Your task to perform on an android device: change notification settings in the gmail app Image 0: 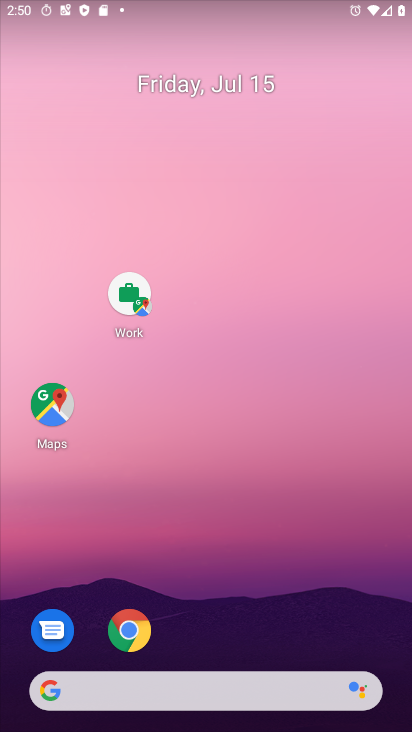
Step 0: drag from (239, 628) to (285, 257)
Your task to perform on an android device: change notification settings in the gmail app Image 1: 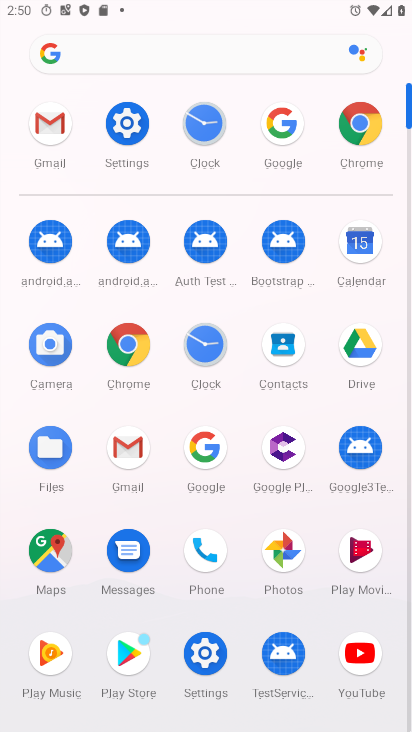
Step 1: click (48, 125)
Your task to perform on an android device: change notification settings in the gmail app Image 2: 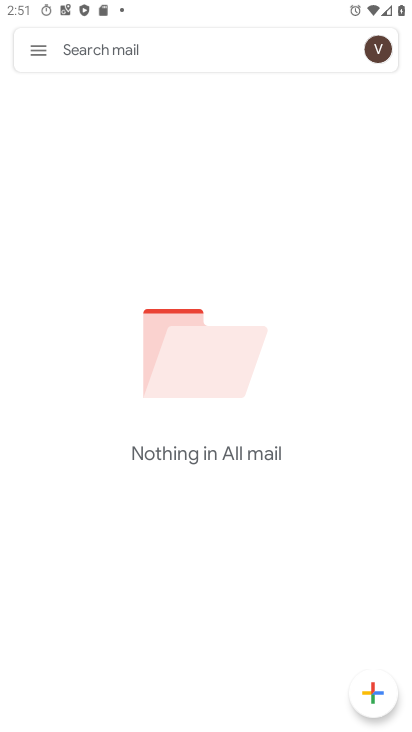
Step 2: click (39, 62)
Your task to perform on an android device: change notification settings in the gmail app Image 3: 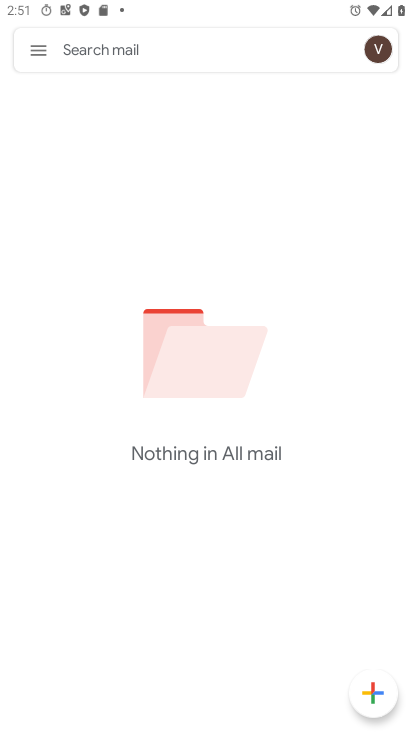
Step 3: click (44, 53)
Your task to perform on an android device: change notification settings in the gmail app Image 4: 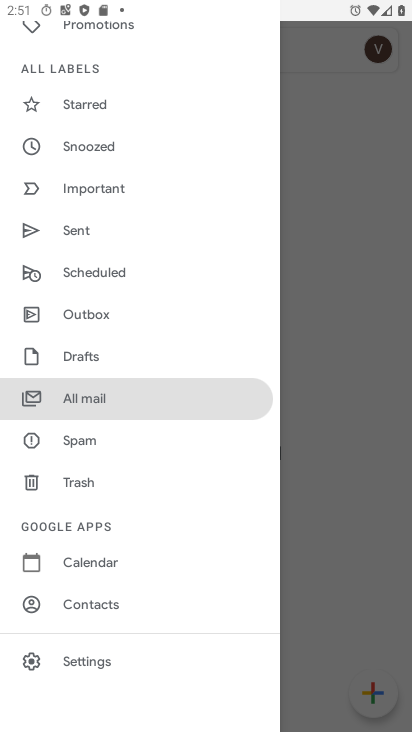
Step 4: click (115, 657)
Your task to perform on an android device: change notification settings in the gmail app Image 5: 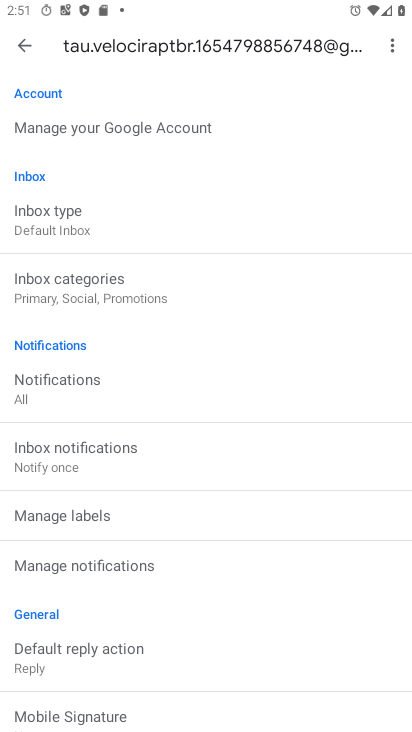
Step 5: click (132, 560)
Your task to perform on an android device: change notification settings in the gmail app Image 6: 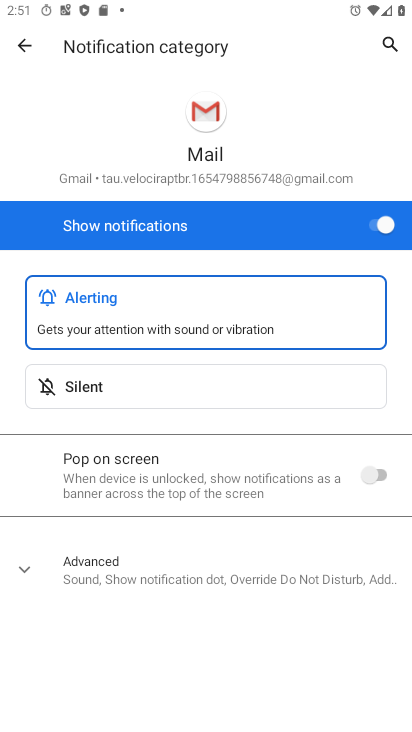
Step 6: click (374, 231)
Your task to perform on an android device: change notification settings in the gmail app Image 7: 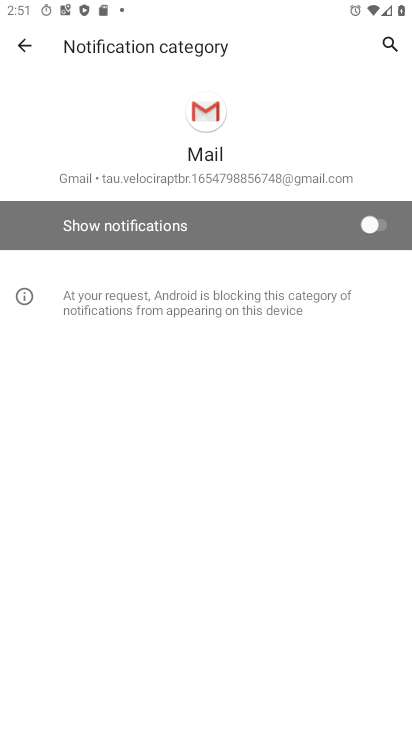
Step 7: task complete